Your task to perform on an android device: Turn on the flashlight Image 0: 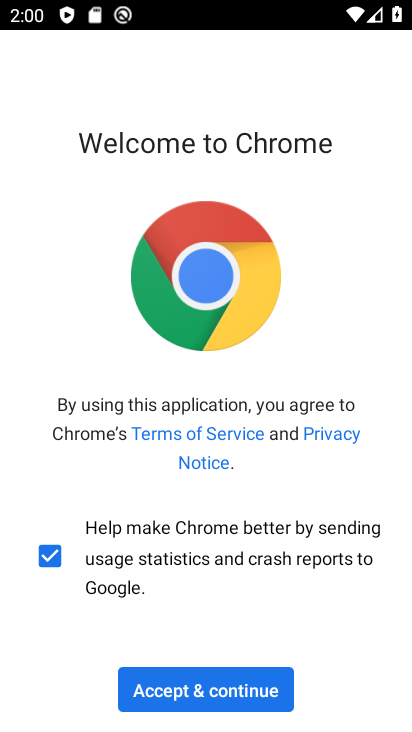
Step 0: press home button
Your task to perform on an android device: Turn on the flashlight Image 1: 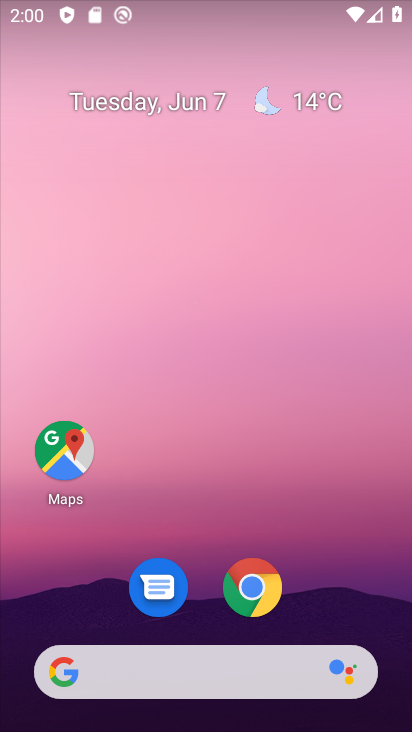
Step 1: task complete